Your task to perform on an android device: remove spam from my inbox in the gmail app Image 0: 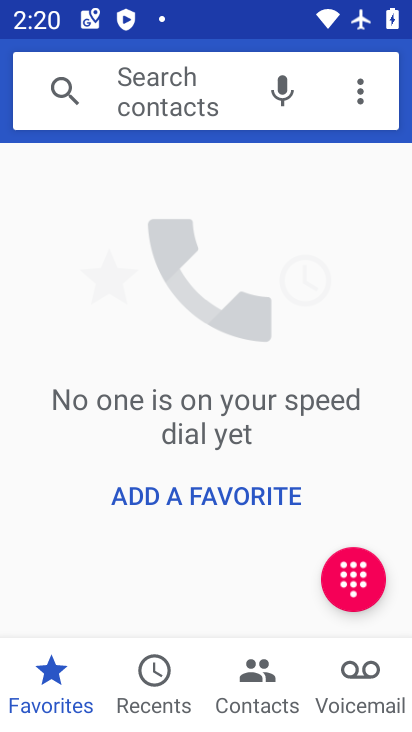
Step 0: press home button
Your task to perform on an android device: remove spam from my inbox in the gmail app Image 1: 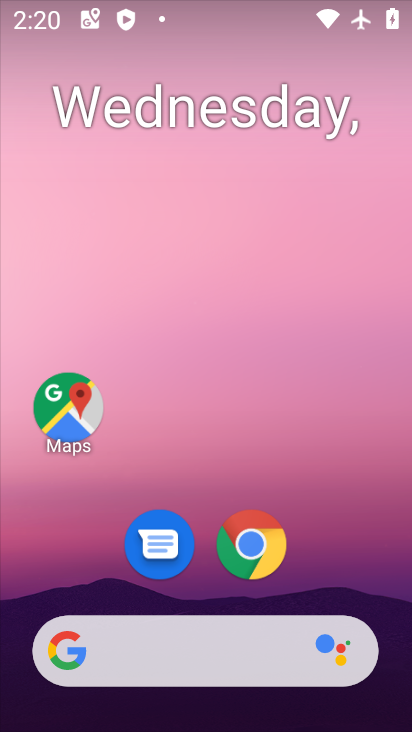
Step 1: drag from (351, 556) to (343, 100)
Your task to perform on an android device: remove spam from my inbox in the gmail app Image 2: 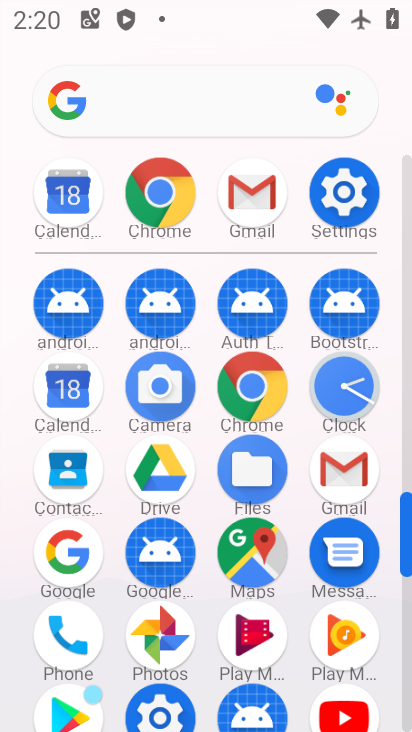
Step 2: click (242, 216)
Your task to perform on an android device: remove spam from my inbox in the gmail app Image 3: 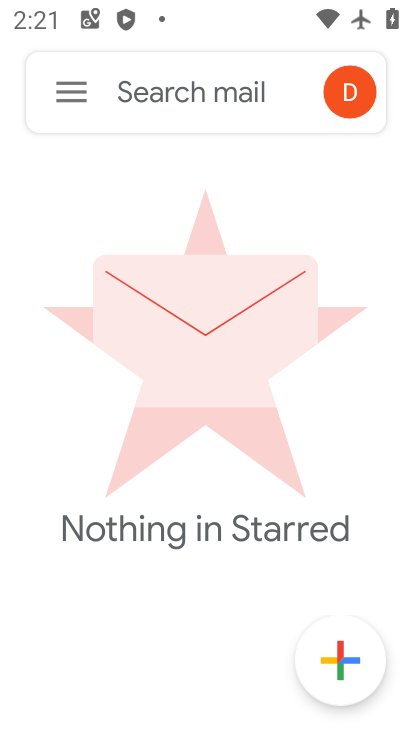
Step 3: click (76, 99)
Your task to perform on an android device: remove spam from my inbox in the gmail app Image 4: 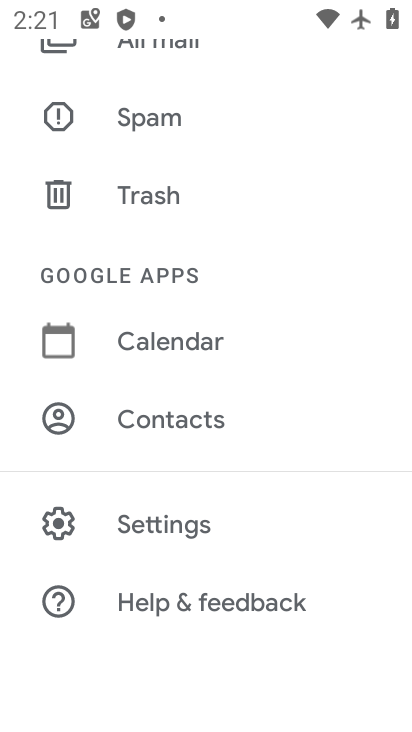
Step 4: click (152, 113)
Your task to perform on an android device: remove spam from my inbox in the gmail app Image 5: 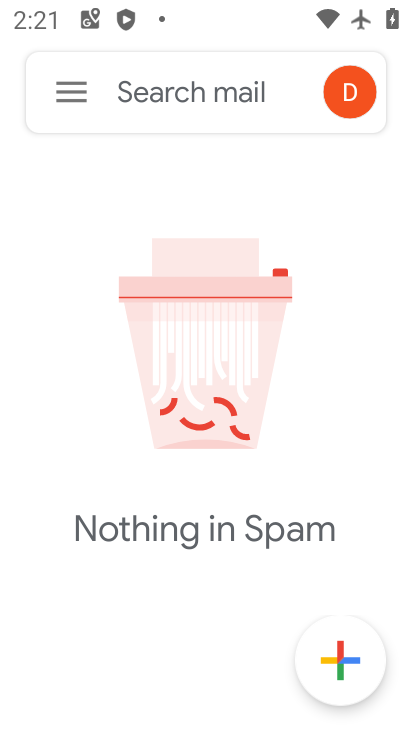
Step 5: task complete